Your task to perform on an android device: Go to ESPN.com Image 0: 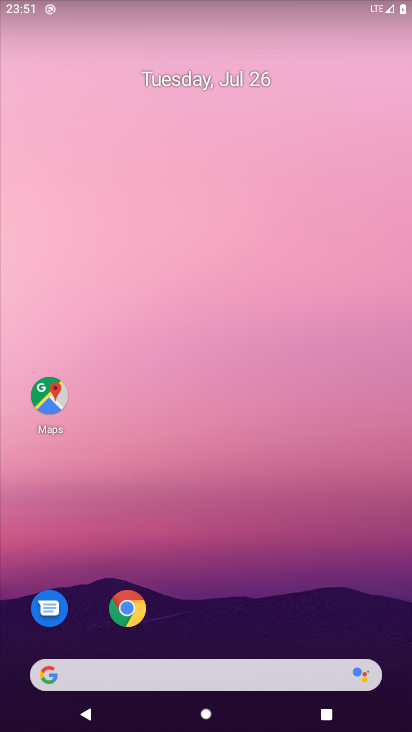
Step 0: press home button
Your task to perform on an android device: Go to ESPN.com Image 1: 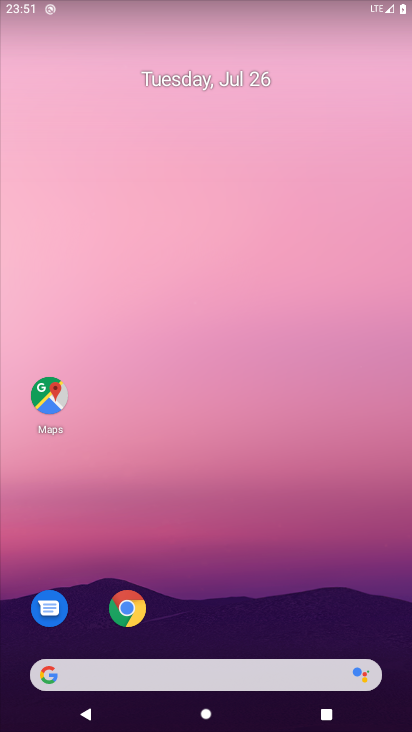
Step 1: click (43, 672)
Your task to perform on an android device: Go to ESPN.com Image 2: 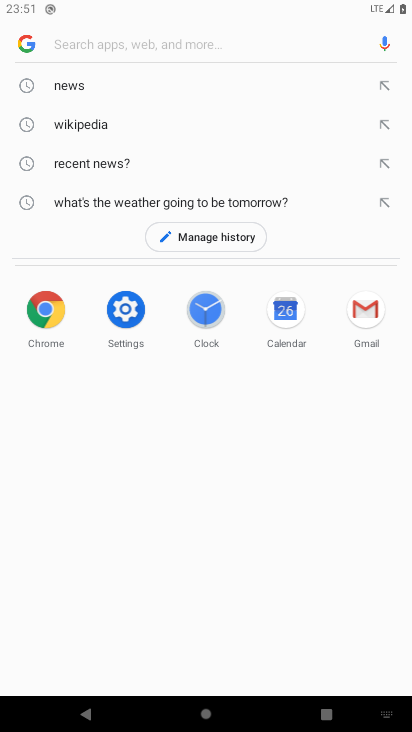
Step 2: type "ESPN.com"
Your task to perform on an android device: Go to ESPN.com Image 3: 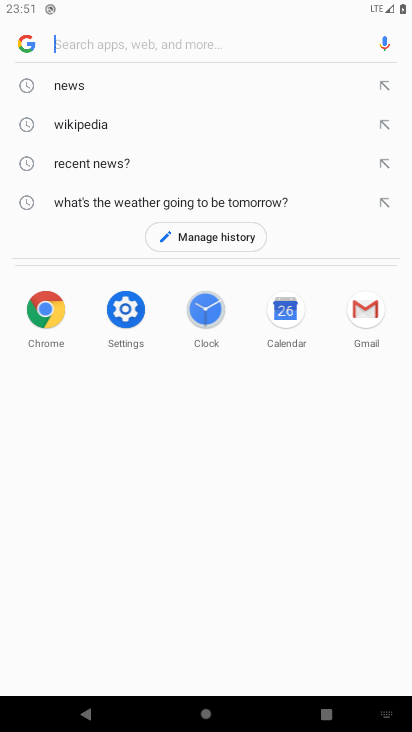
Step 3: click (94, 49)
Your task to perform on an android device: Go to ESPN.com Image 4: 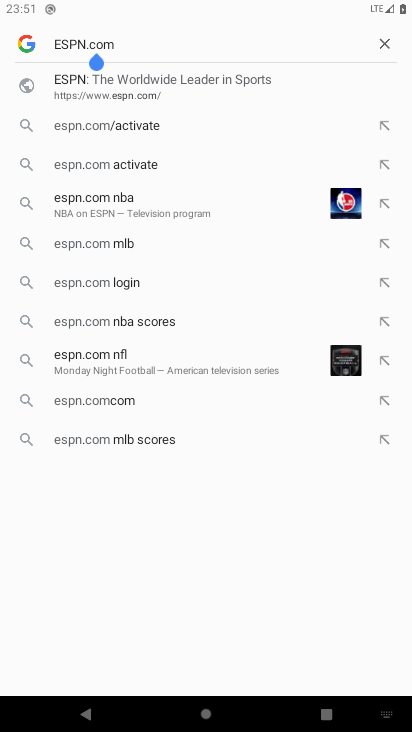
Step 4: press enter
Your task to perform on an android device: Go to ESPN.com Image 5: 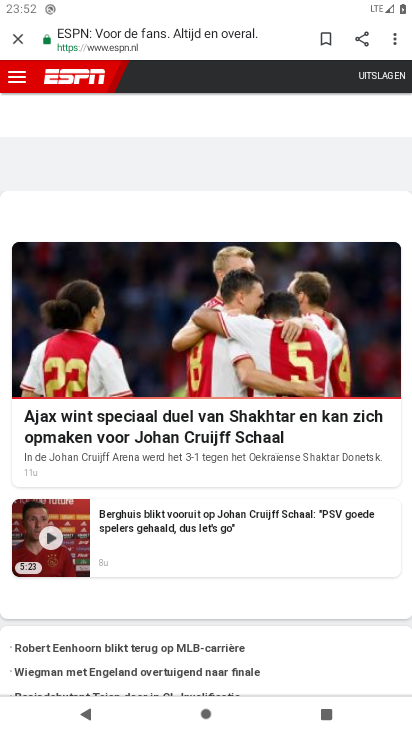
Step 5: task complete